Your task to perform on an android device: Turn on the flashlight Image 0: 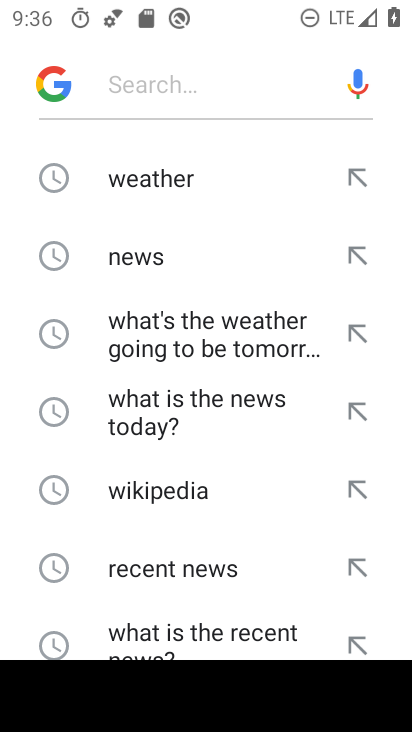
Step 0: press home button
Your task to perform on an android device: Turn on the flashlight Image 1: 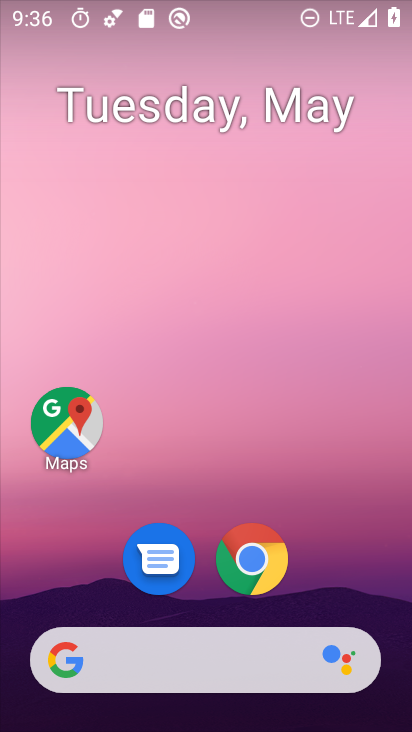
Step 1: drag from (391, 652) to (217, 1)
Your task to perform on an android device: Turn on the flashlight Image 2: 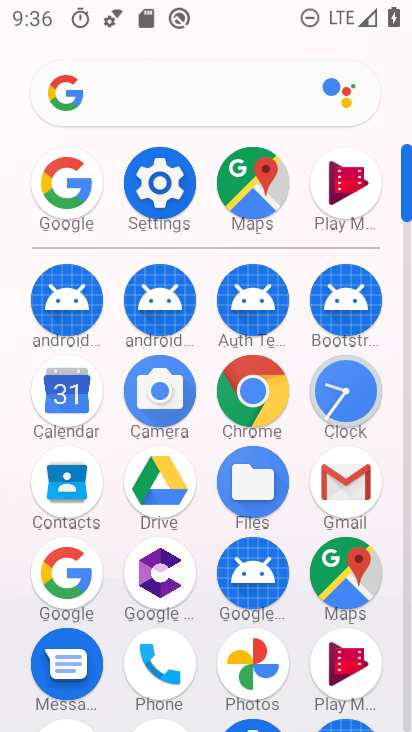
Step 2: click (164, 171)
Your task to perform on an android device: Turn on the flashlight Image 3: 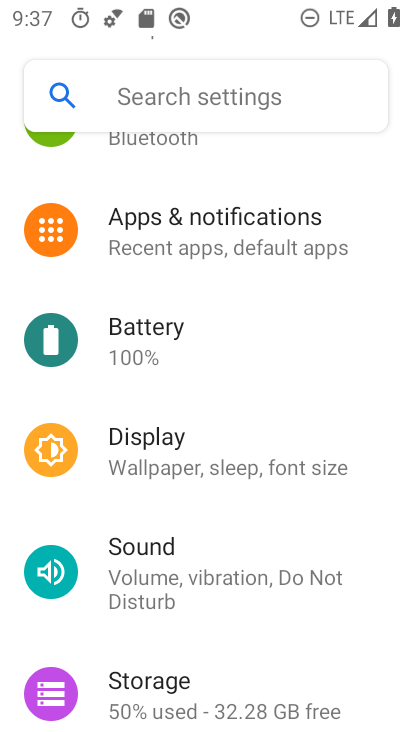
Step 3: task complete